Your task to perform on an android device: Open my contact list Image 0: 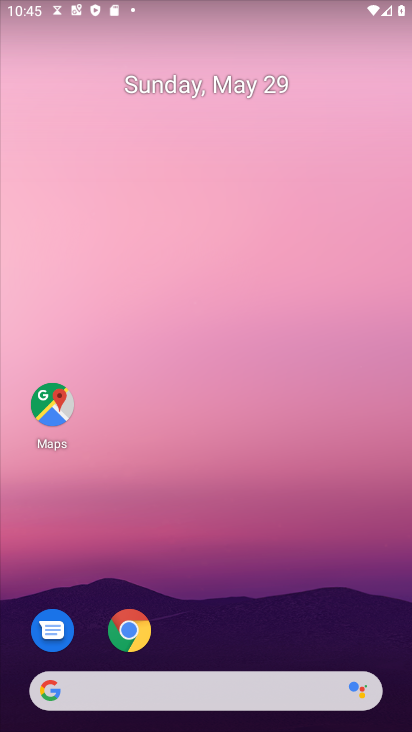
Step 0: drag from (243, 638) to (258, 45)
Your task to perform on an android device: Open my contact list Image 1: 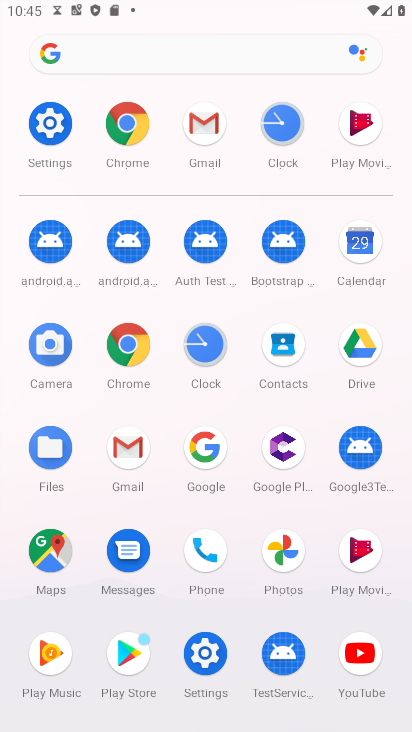
Step 1: click (281, 347)
Your task to perform on an android device: Open my contact list Image 2: 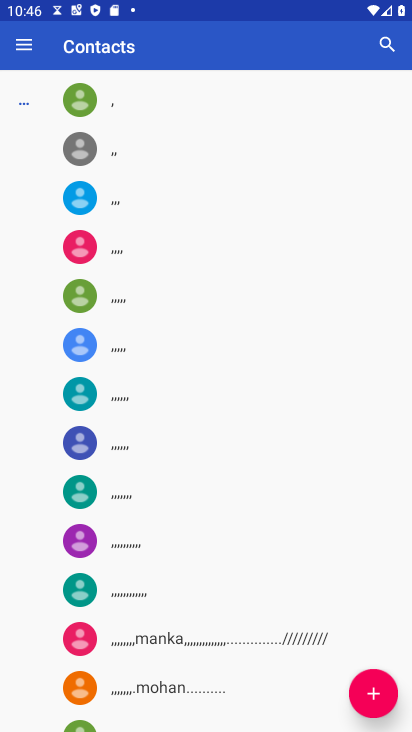
Step 2: task complete